Your task to perform on an android device: Open calendar and show me the first week of next month Image 0: 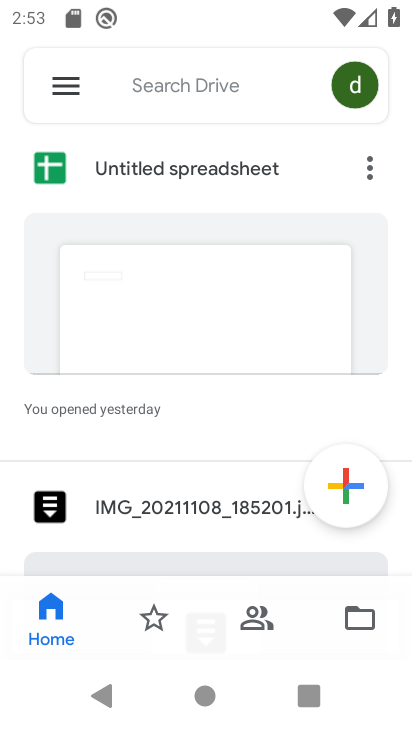
Step 0: press home button
Your task to perform on an android device: Open calendar and show me the first week of next month Image 1: 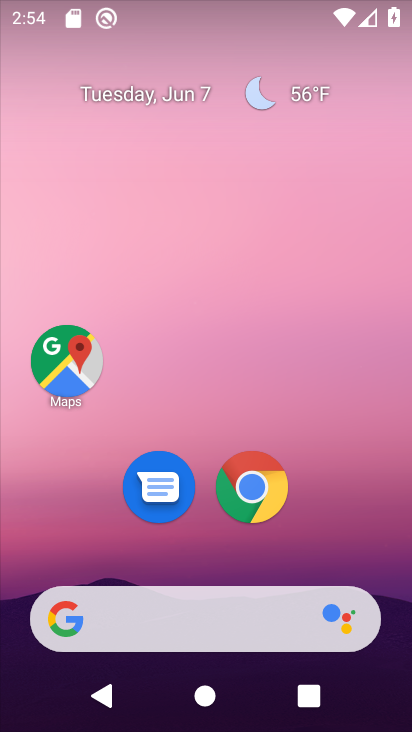
Step 1: drag from (381, 535) to (323, 184)
Your task to perform on an android device: Open calendar and show me the first week of next month Image 2: 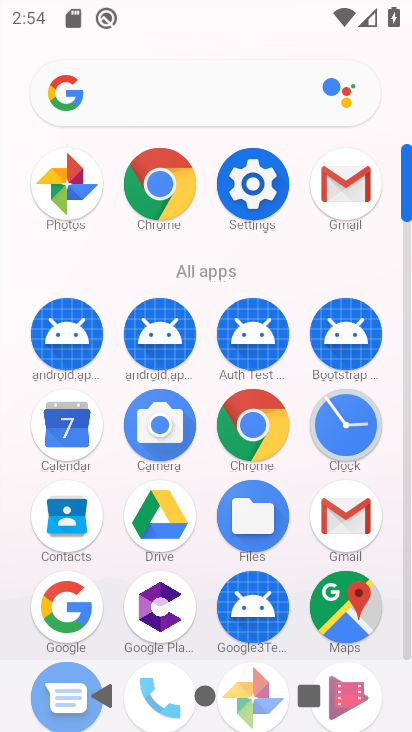
Step 2: click (74, 427)
Your task to perform on an android device: Open calendar and show me the first week of next month Image 3: 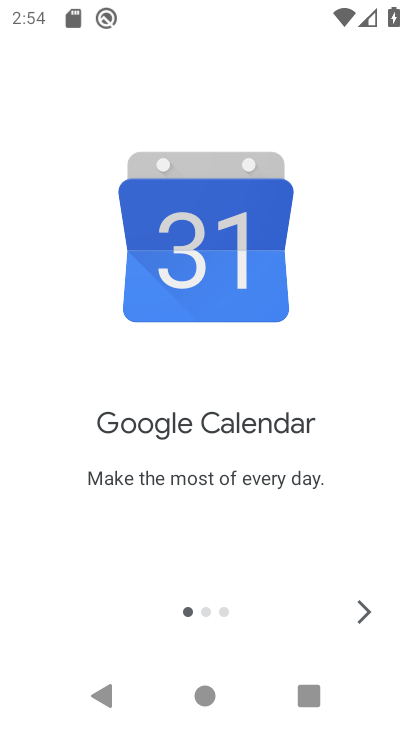
Step 3: click (366, 616)
Your task to perform on an android device: Open calendar and show me the first week of next month Image 4: 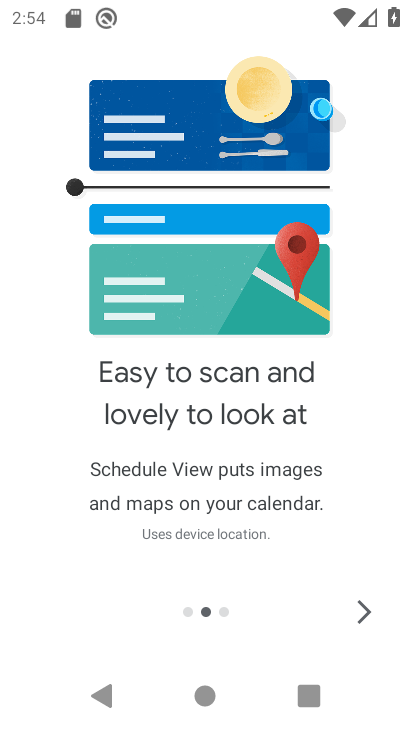
Step 4: click (366, 616)
Your task to perform on an android device: Open calendar and show me the first week of next month Image 5: 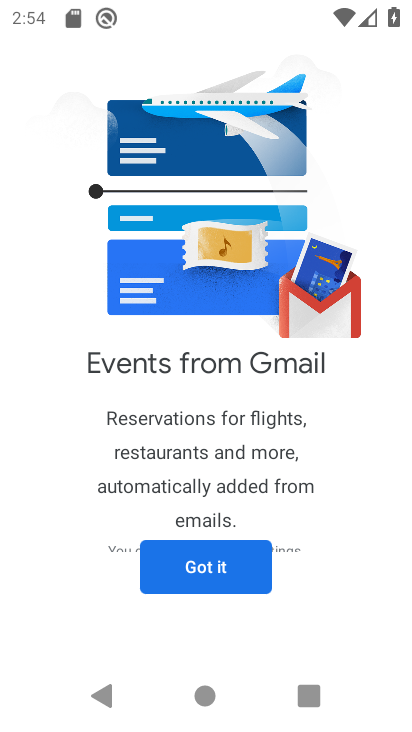
Step 5: click (234, 565)
Your task to perform on an android device: Open calendar and show me the first week of next month Image 6: 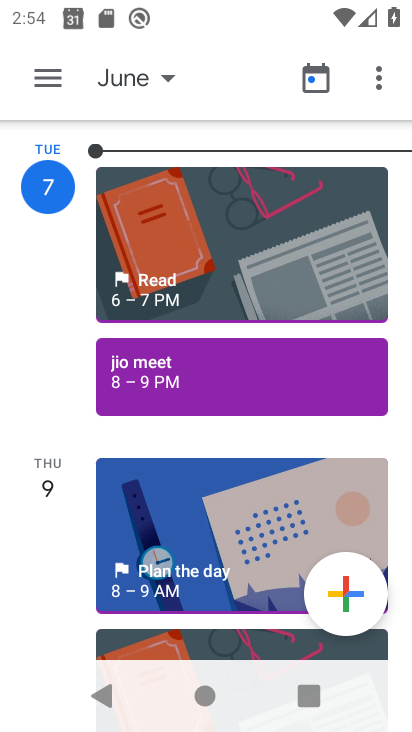
Step 6: click (56, 69)
Your task to perform on an android device: Open calendar and show me the first week of next month Image 7: 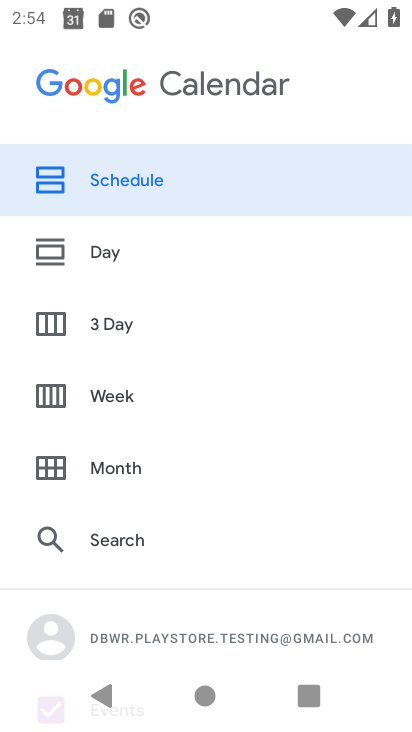
Step 7: click (195, 390)
Your task to perform on an android device: Open calendar and show me the first week of next month Image 8: 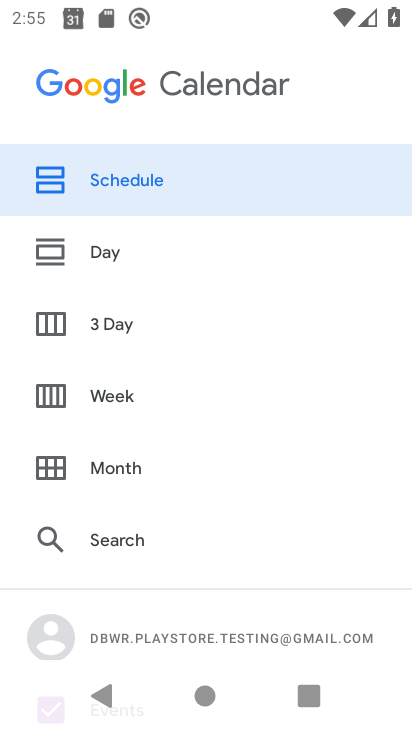
Step 8: click (130, 408)
Your task to perform on an android device: Open calendar and show me the first week of next month Image 9: 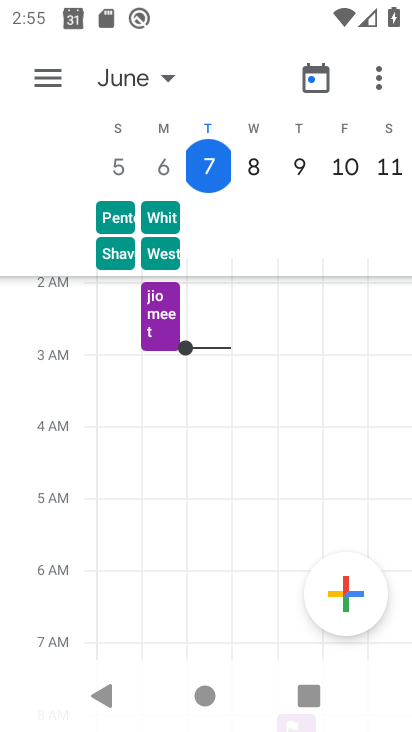
Step 9: click (157, 63)
Your task to perform on an android device: Open calendar and show me the first week of next month Image 10: 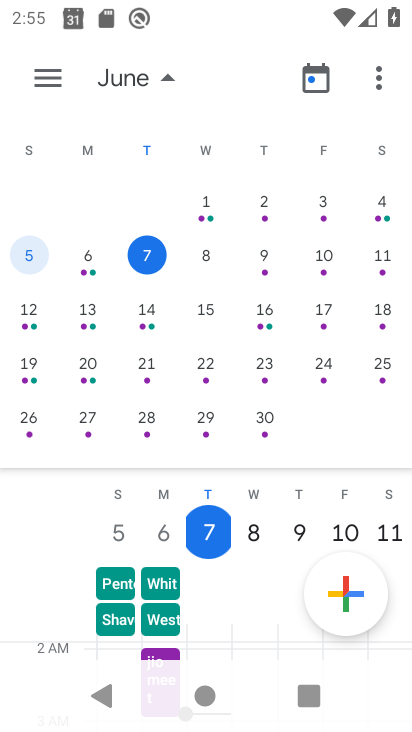
Step 10: drag from (385, 324) to (36, 339)
Your task to perform on an android device: Open calendar and show me the first week of next month Image 11: 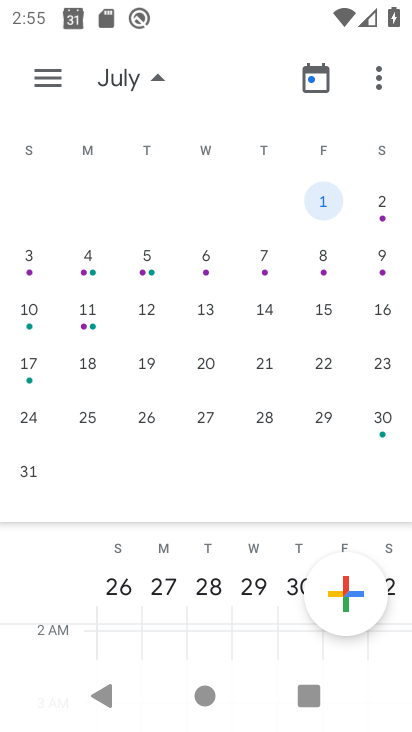
Step 11: click (206, 270)
Your task to perform on an android device: Open calendar and show me the first week of next month Image 12: 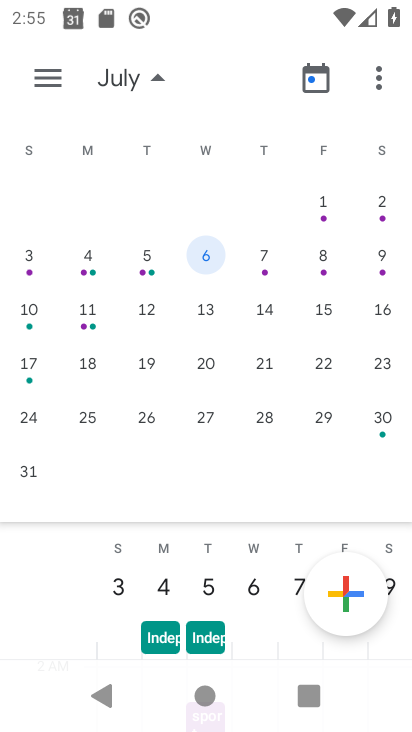
Step 12: task complete